Your task to perform on an android device: turn off javascript in the chrome app Image 0: 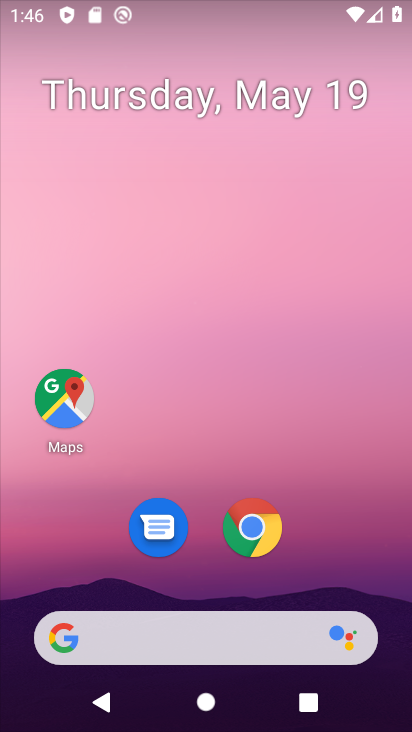
Step 0: click (242, 519)
Your task to perform on an android device: turn off javascript in the chrome app Image 1: 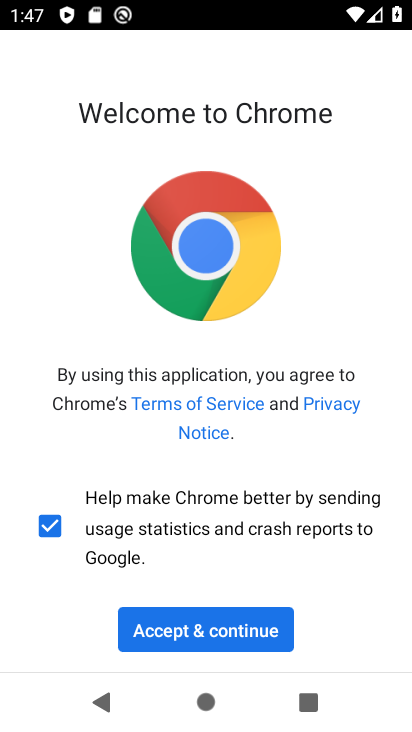
Step 1: click (148, 618)
Your task to perform on an android device: turn off javascript in the chrome app Image 2: 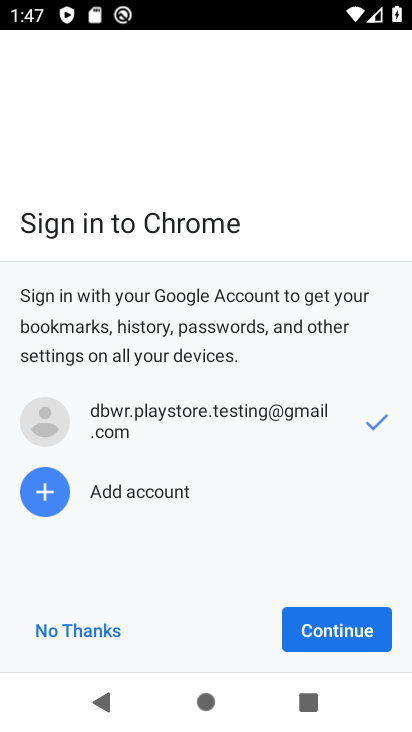
Step 2: click (302, 626)
Your task to perform on an android device: turn off javascript in the chrome app Image 3: 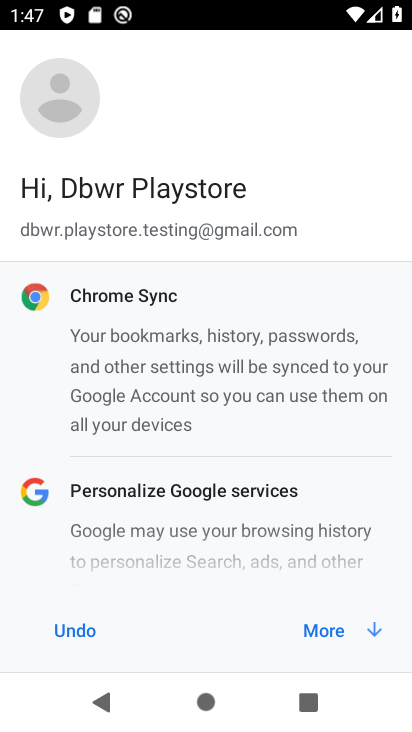
Step 3: click (302, 626)
Your task to perform on an android device: turn off javascript in the chrome app Image 4: 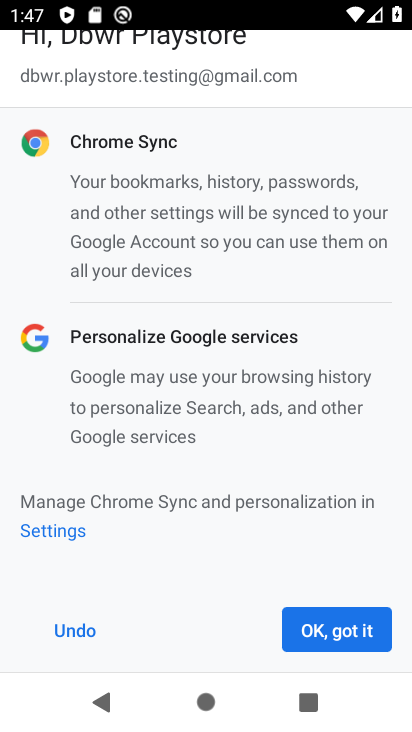
Step 4: click (302, 626)
Your task to perform on an android device: turn off javascript in the chrome app Image 5: 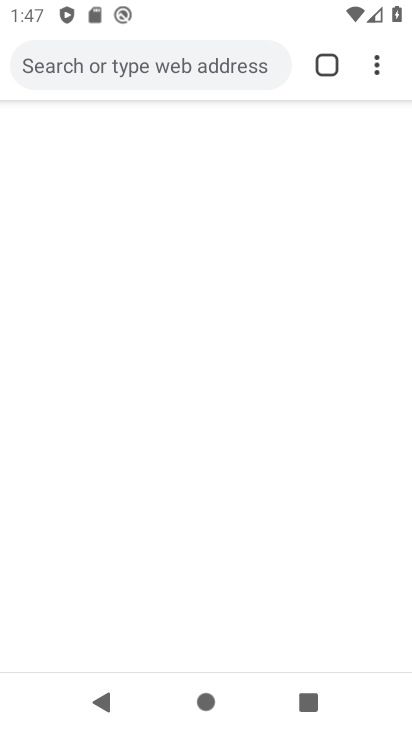
Step 5: click (302, 626)
Your task to perform on an android device: turn off javascript in the chrome app Image 6: 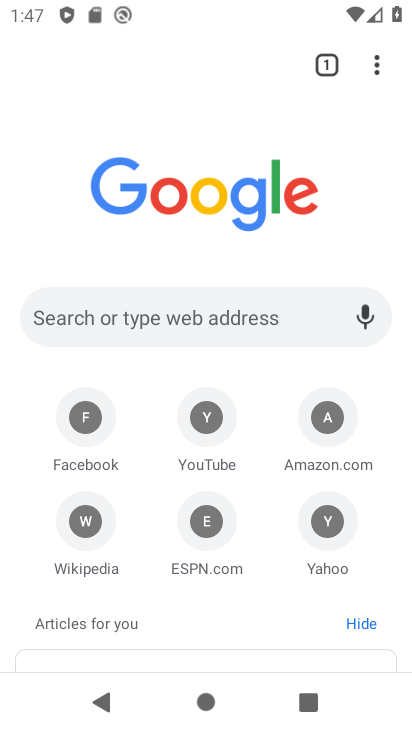
Step 6: click (376, 66)
Your task to perform on an android device: turn off javascript in the chrome app Image 7: 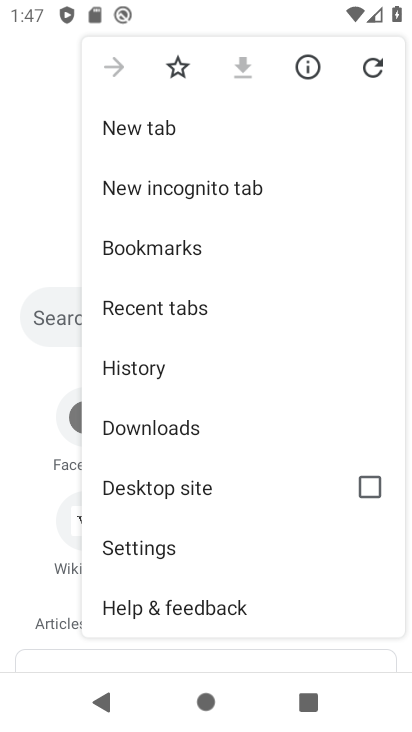
Step 7: click (131, 544)
Your task to perform on an android device: turn off javascript in the chrome app Image 8: 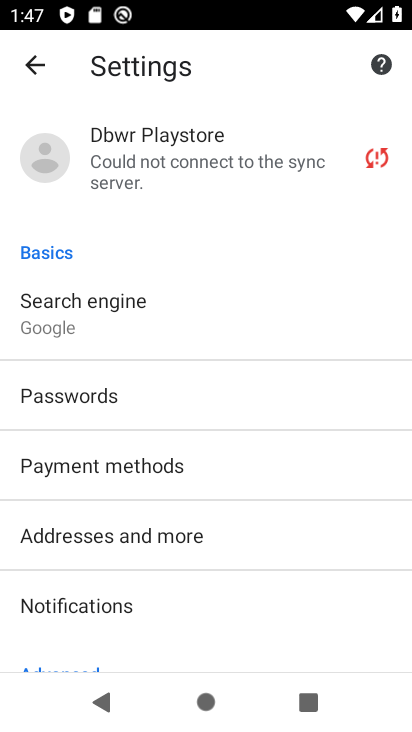
Step 8: drag from (134, 636) to (188, 153)
Your task to perform on an android device: turn off javascript in the chrome app Image 9: 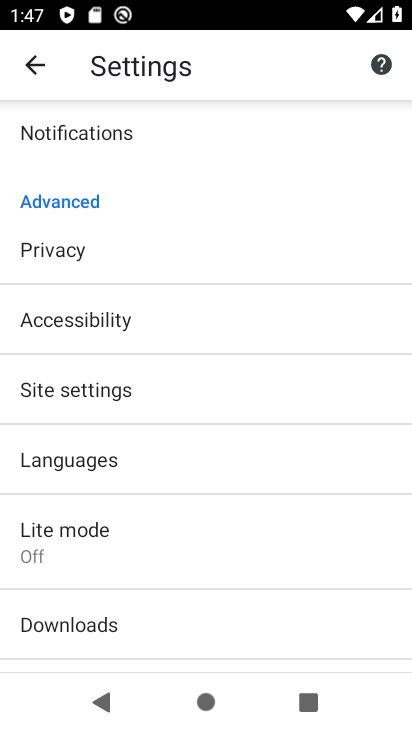
Step 9: click (187, 402)
Your task to perform on an android device: turn off javascript in the chrome app Image 10: 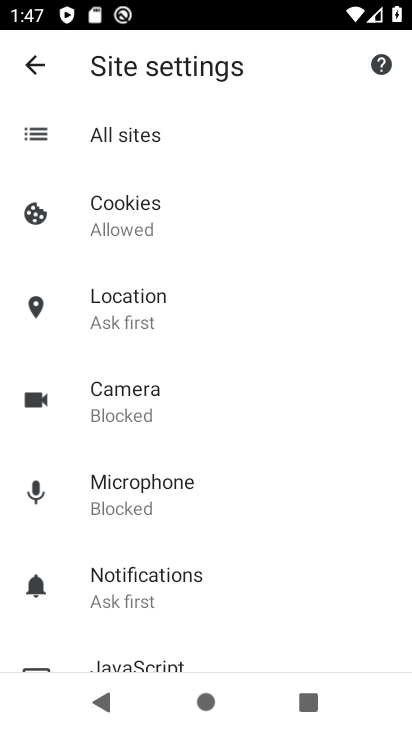
Step 10: drag from (235, 568) to (252, 307)
Your task to perform on an android device: turn off javascript in the chrome app Image 11: 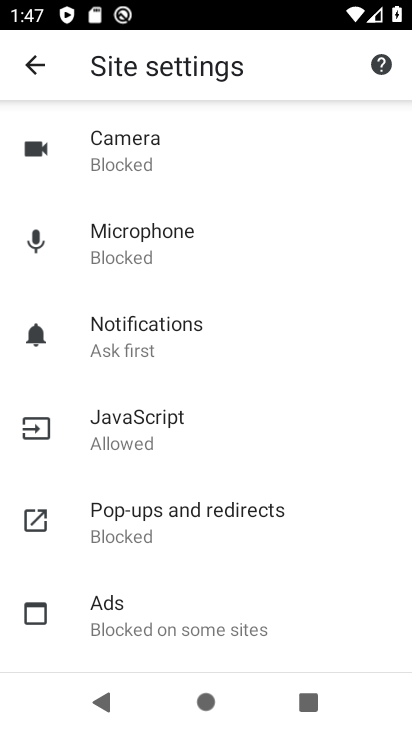
Step 11: click (194, 423)
Your task to perform on an android device: turn off javascript in the chrome app Image 12: 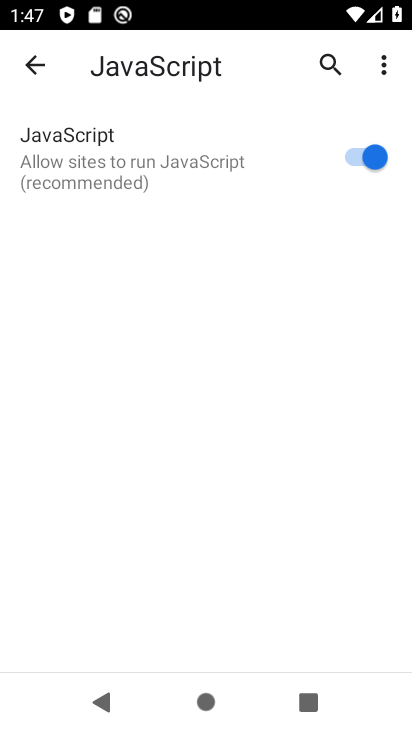
Step 12: click (357, 157)
Your task to perform on an android device: turn off javascript in the chrome app Image 13: 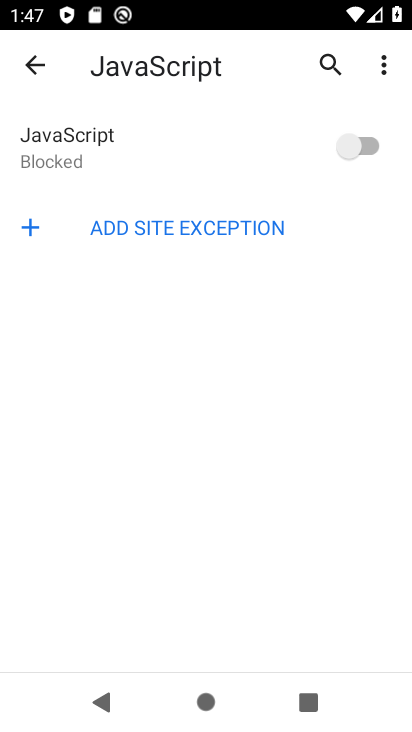
Step 13: task complete